Your task to perform on an android device: Open wifi settings Image 0: 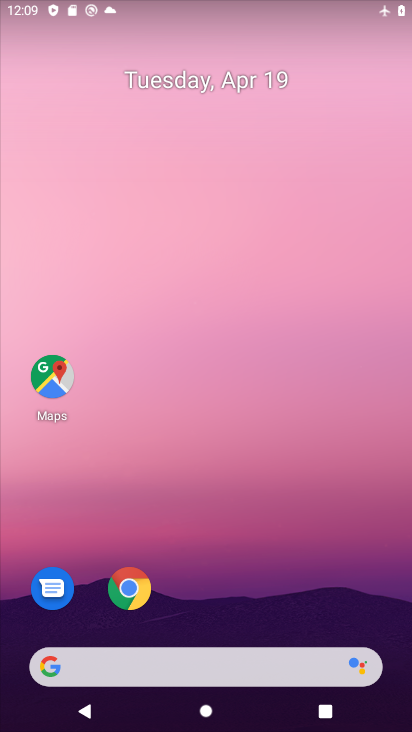
Step 0: drag from (390, 605) to (380, 56)
Your task to perform on an android device: Open wifi settings Image 1: 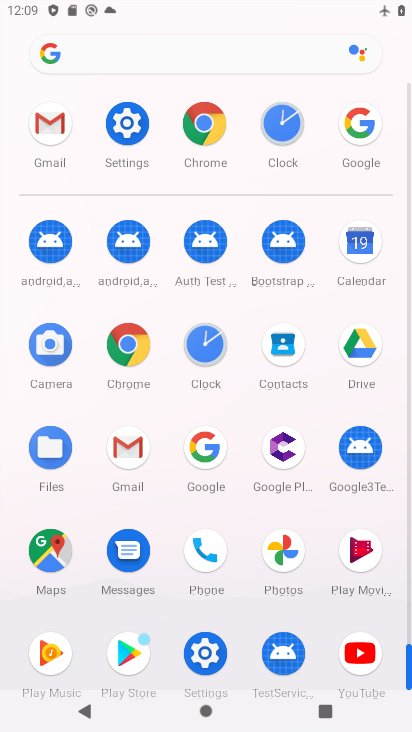
Step 1: click (130, 134)
Your task to perform on an android device: Open wifi settings Image 2: 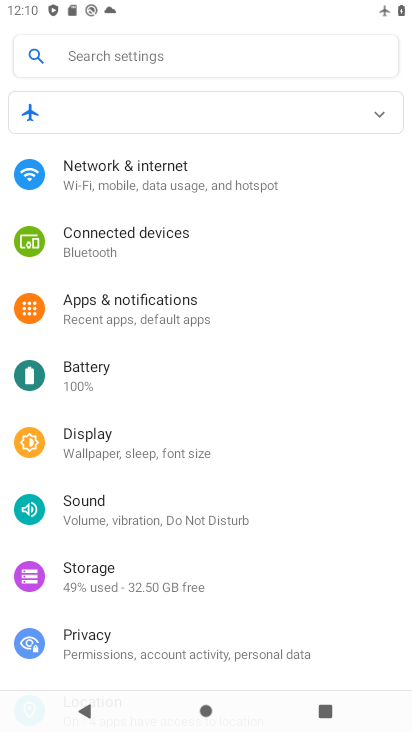
Step 2: click (177, 181)
Your task to perform on an android device: Open wifi settings Image 3: 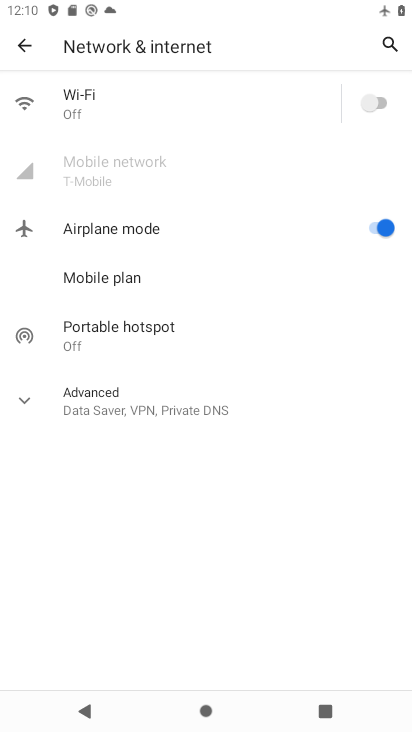
Step 3: click (77, 91)
Your task to perform on an android device: Open wifi settings Image 4: 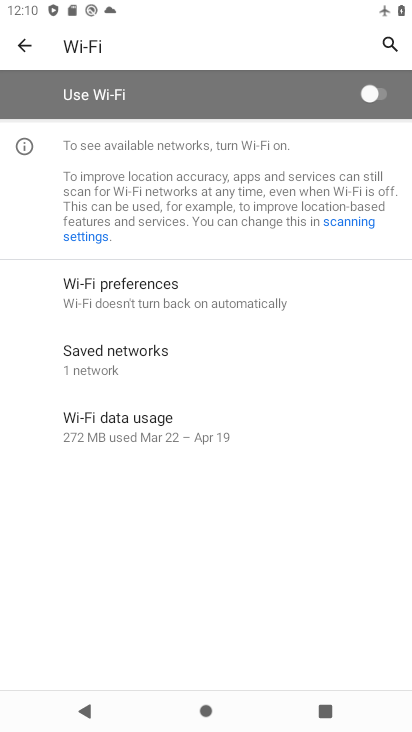
Step 4: task complete